Your task to perform on an android device: turn off picture-in-picture Image 0: 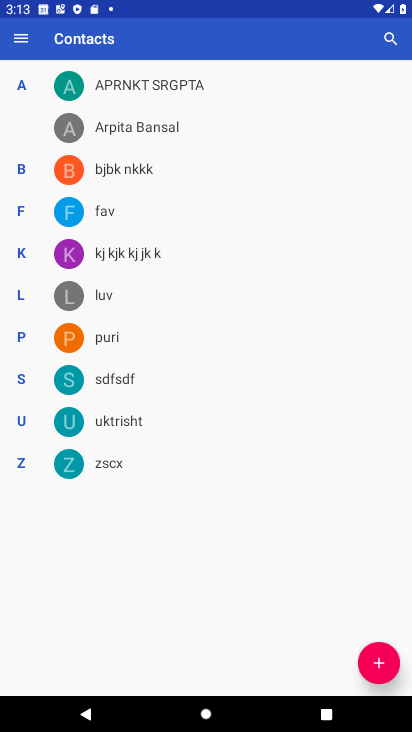
Step 0: press home button
Your task to perform on an android device: turn off picture-in-picture Image 1: 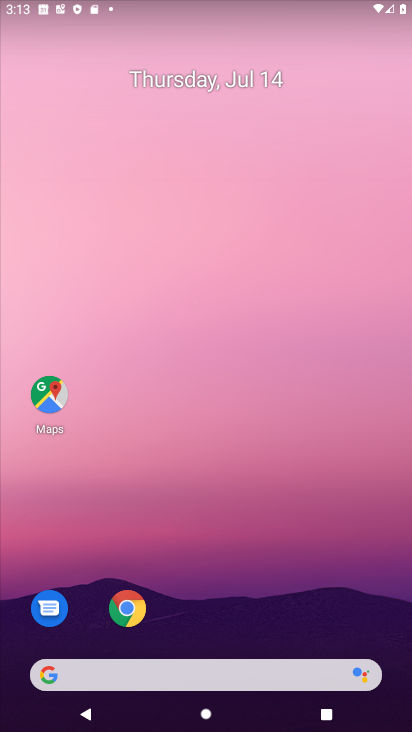
Step 1: click (121, 615)
Your task to perform on an android device: turn off picture-in-picture Image 2: 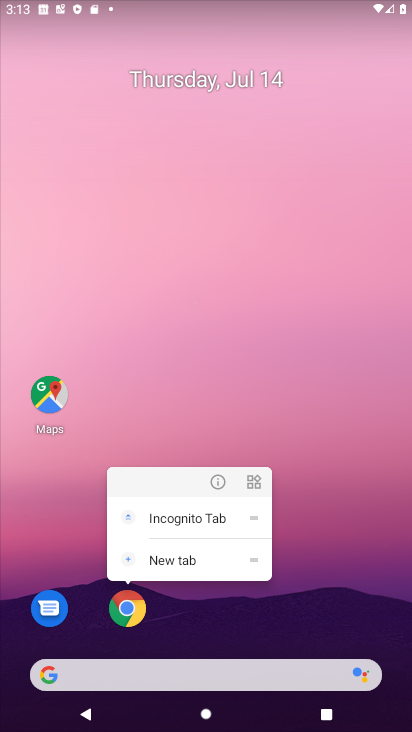
Step 2: click (220, 482)
Your task to perform on an android device: turn off picture-in-picture Image 3: 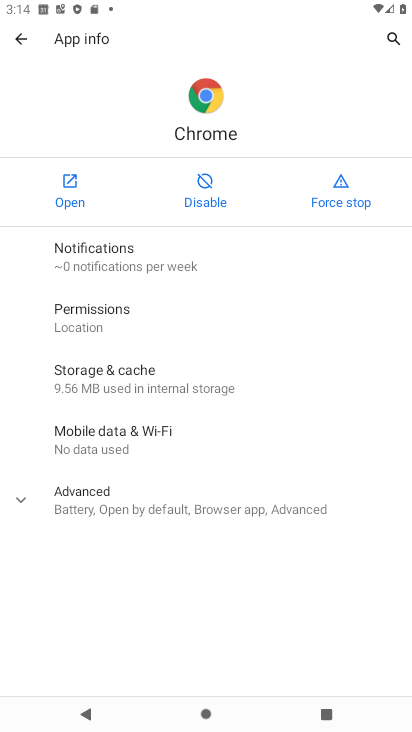
Step 3: click (221, 501)
Your task to perform on an android device: turn off picture-in-picture Image 4: 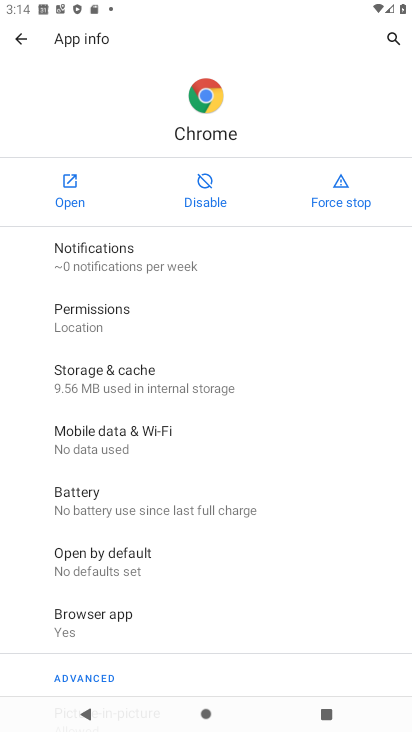
Step 4: drag from (140, 617) to (159, 287)
Your task to perform on an android device: turn off picture-in-picture Image 5: 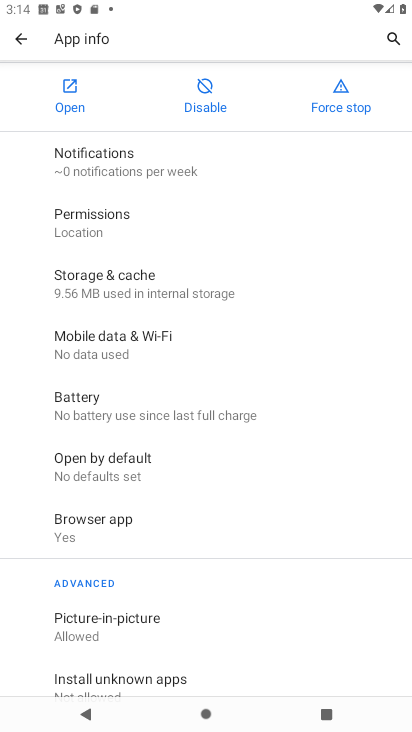
Step 5: click (131, 620)
Your task to perform on an android device: turn off picture-in-picture Image 6: 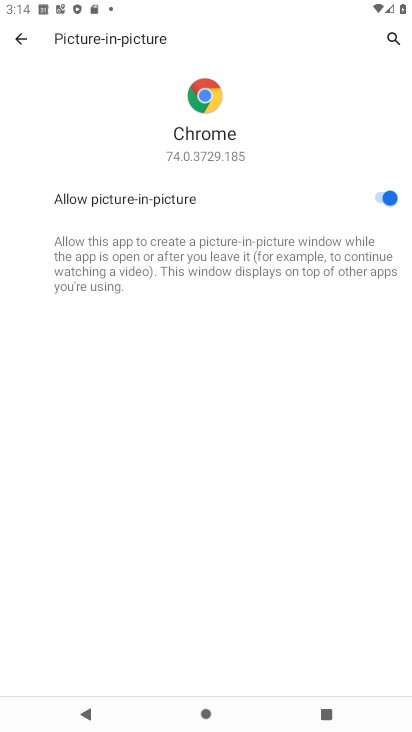
Step 6: click (382, 192)
Your task to perform on an android device: turn off picture-in-picture Image 7: 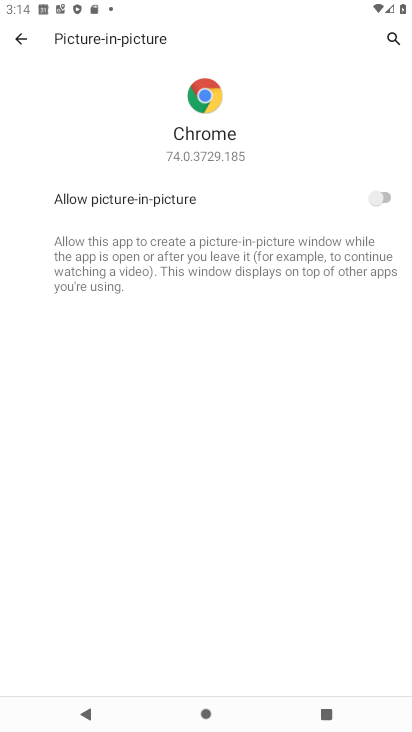
Step 7: task complete